Your task to perform on an android device: Go to network settings Image 0: 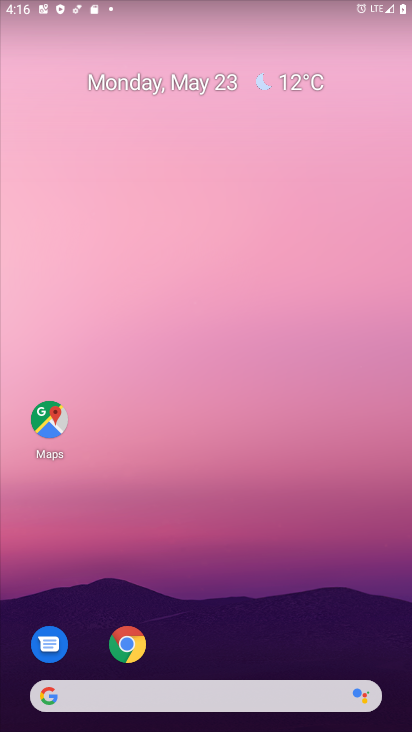
Step 0: drag from (223, 623) to (182, 155)
Your task to perform on an android device: Go to network settings Image 1: 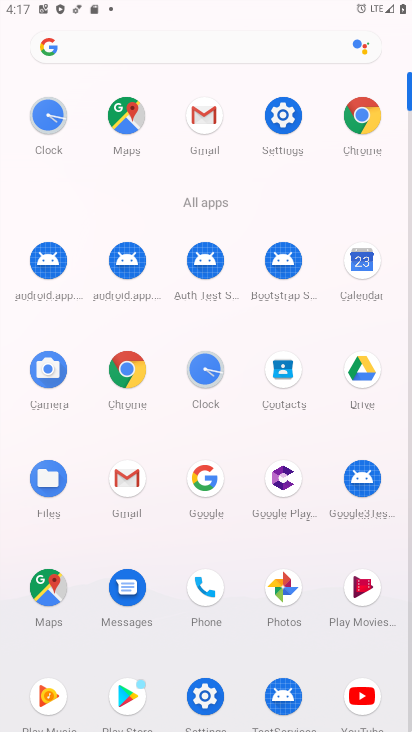
Step 1: click (285, 115)
Your task to perform on an android device: Go to network settings Image 2: 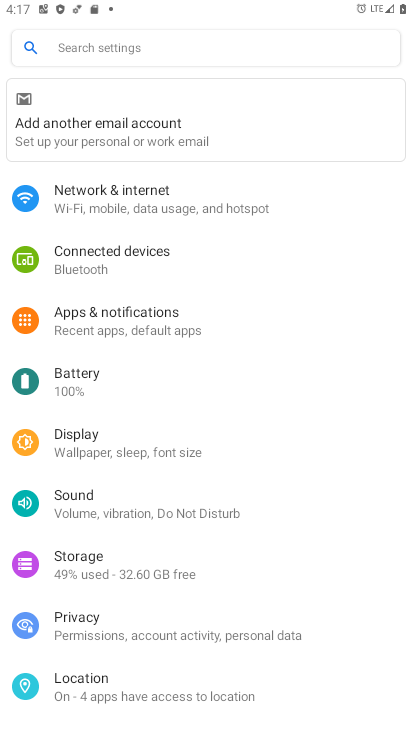
Step 2: task complete